Your task to perform on an android device: Search for Italian restaurants on Maps Image 0: 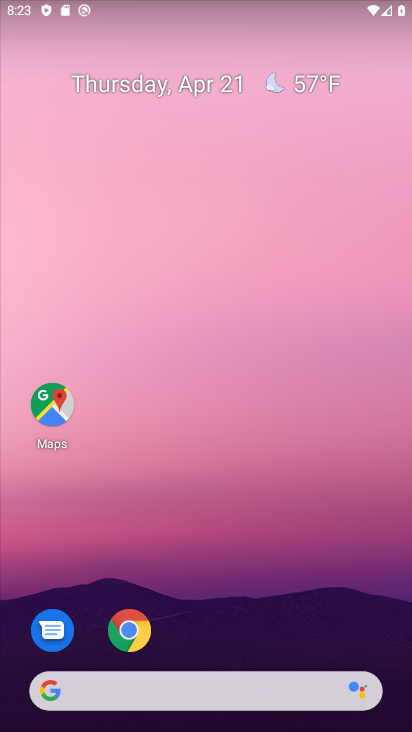
Step 0: drag from (313, 620) to (284, 110)
Your task to perform on an android device: Search for Italian restaurants on Maps Image 1: 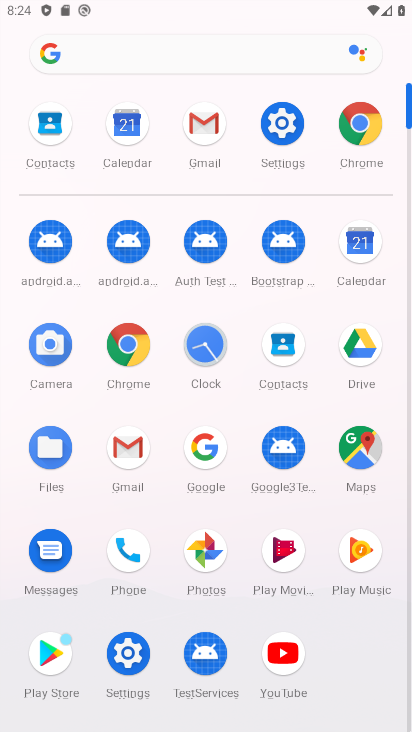
Step 1: click (354, 448)
Your task to perform on an android device: Search for Italian restaurants on Maps Image 2: 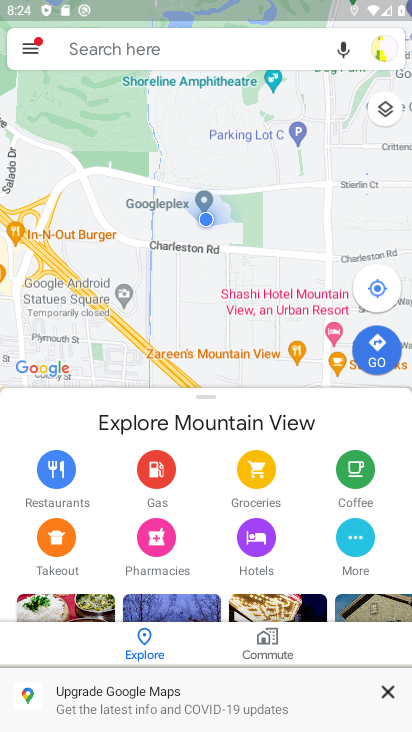
Step 2: click (128, 45)
Your task to perform on an android device: Search for Italian restaurants on Maps Image 3: 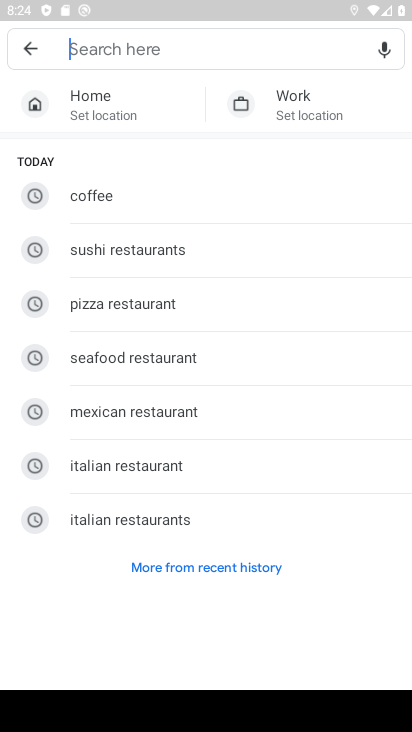
Step 3: click (203, 469)
Your task to perform on an android device: Search for Italian restaurants on Maps Image 4: 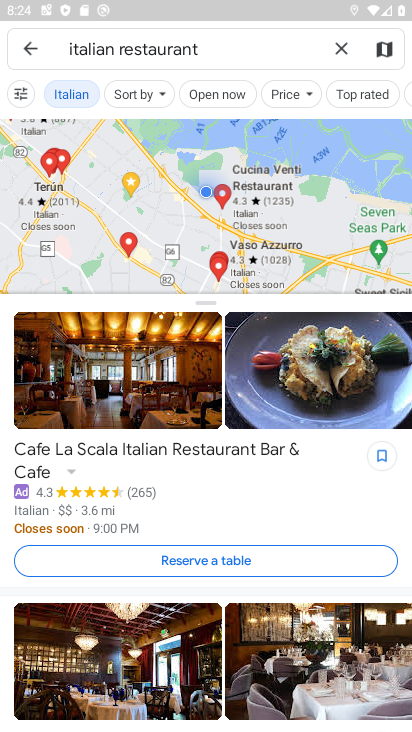
Step 4: task complete